Your task to perform on an android device: open chrome privacy settings Image 0: 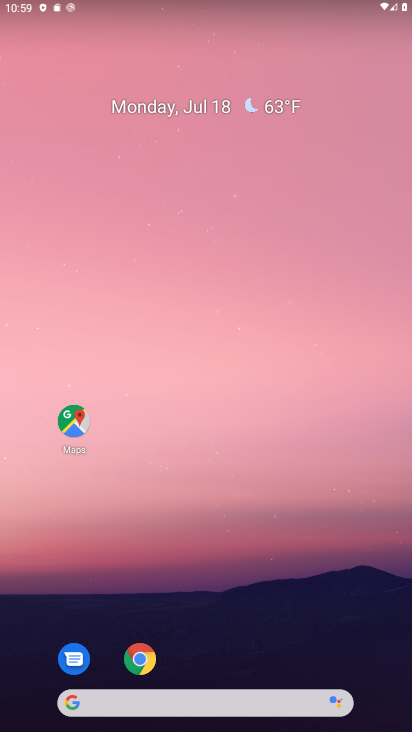
Step 0: drag from (192, 662) to (220, 133)
Your task to perform on an android device: open chrome privacy settings Image 1: 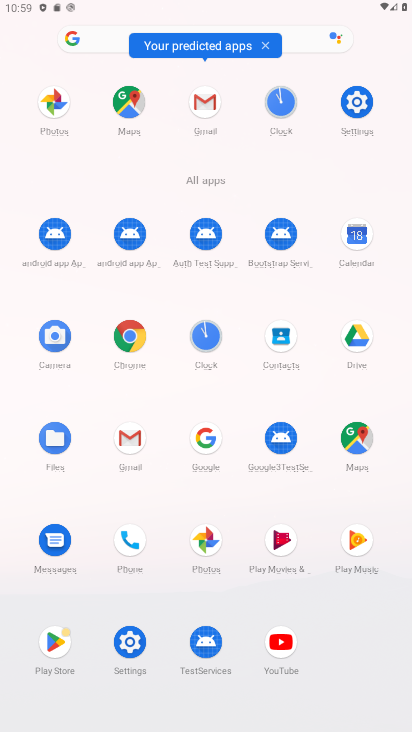
Step 1: click (132, 340)
Your task to perform on an android device: open chrome privacy settings Image 2: 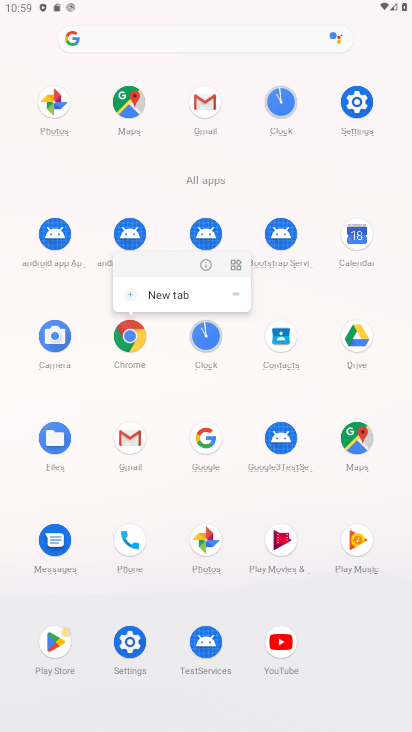
Step 2: click (131, 338)
Your task to perform on an android device: open chrome privacy settings Image 3: 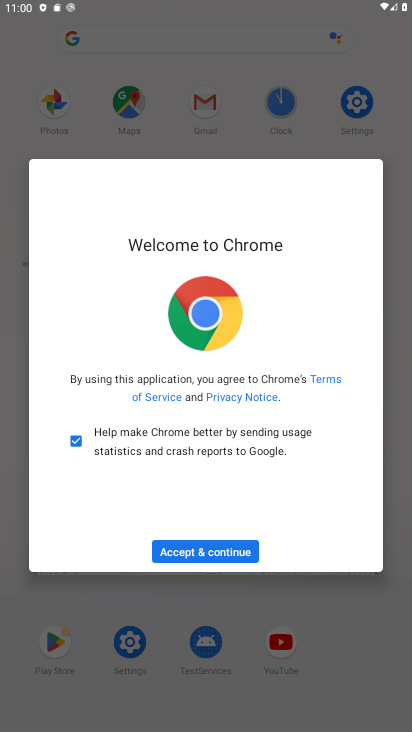
Step 3: click (191, 548)
Your task to perform on an android device: open chrome privacy settings Image 4: 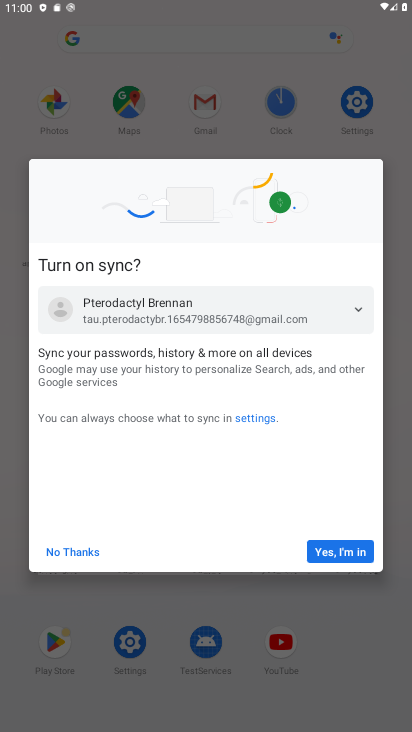
Step 4: click (323, 553)
Your task to perform on an android device: open chrome privacy settings Image 5: 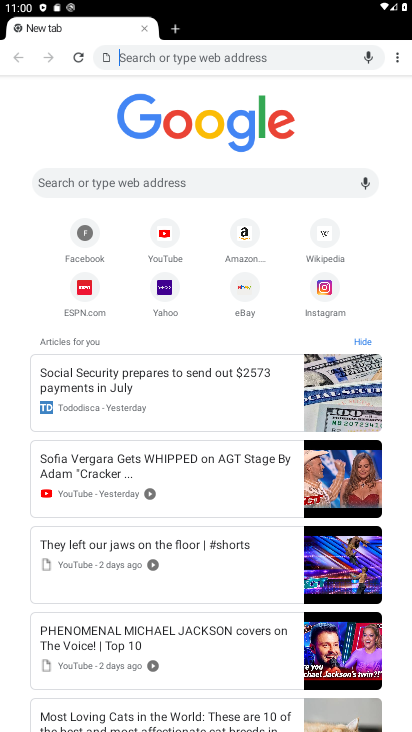
Step 5: click (395, 55)
Your task to perform on an android device: open chrome privacy settings Image 6: 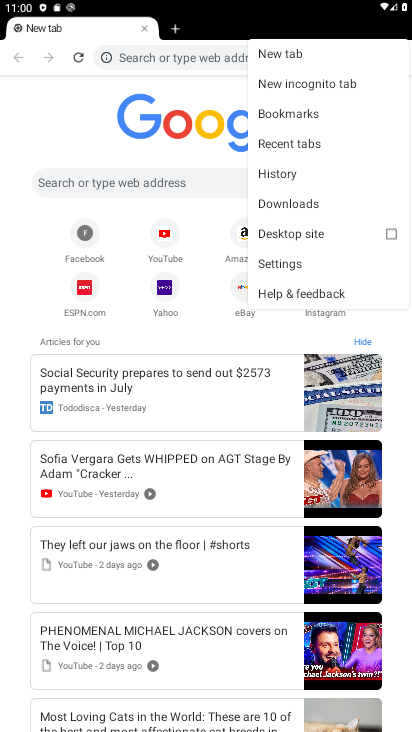
Step 6: click (302, 260)
Your task to perform on an android device: open chrome privacy settings Image 7: 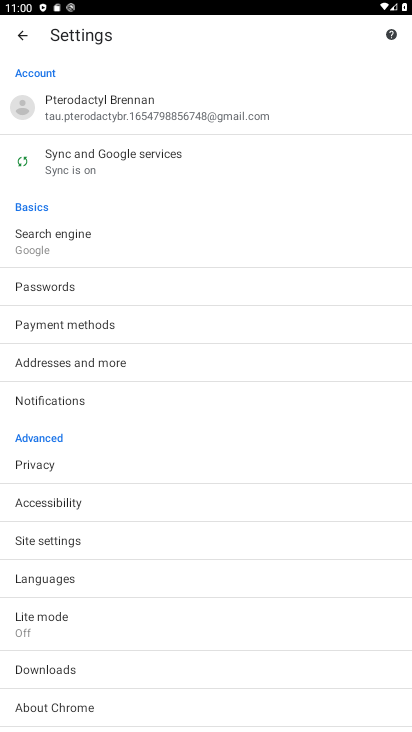
Step 7: click (52, 472)
Your task to perform on an android device: open chrome privacy settings Image 8: 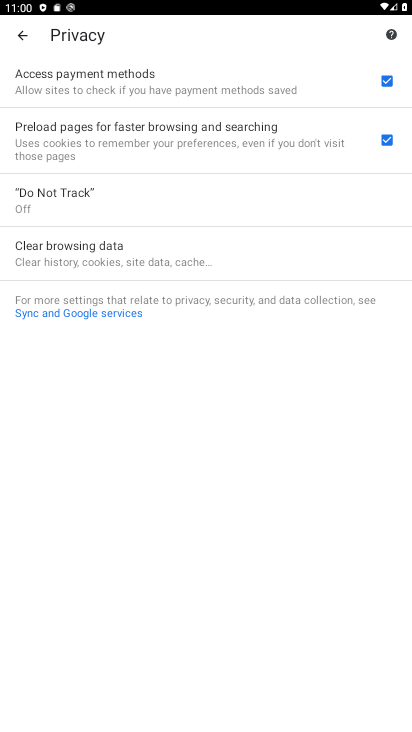
Step 8: task complete